Your task to perform on an android device: open app "Truecaller" Image 0: 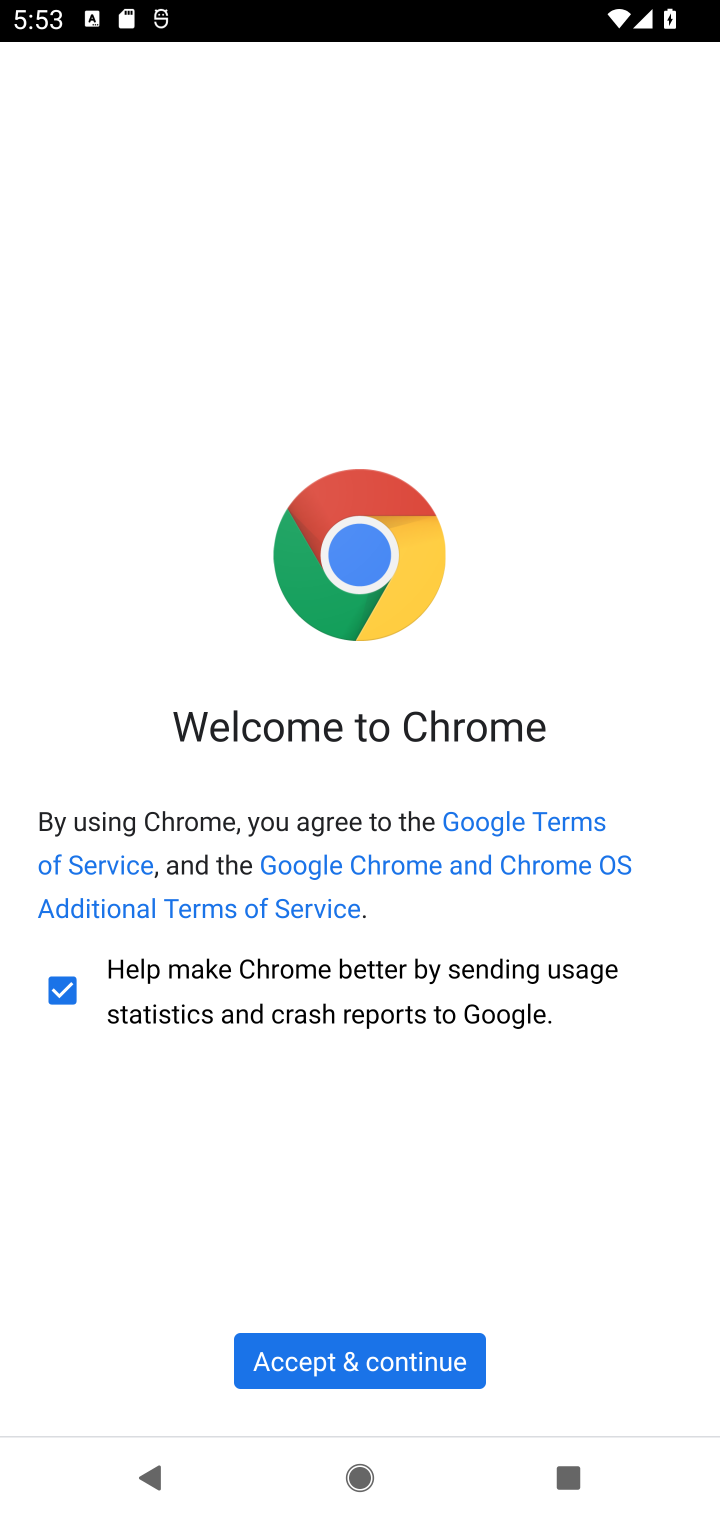
Step 0: press home button
Your task to perform on an android device: open app "Truecaller" Image 1: 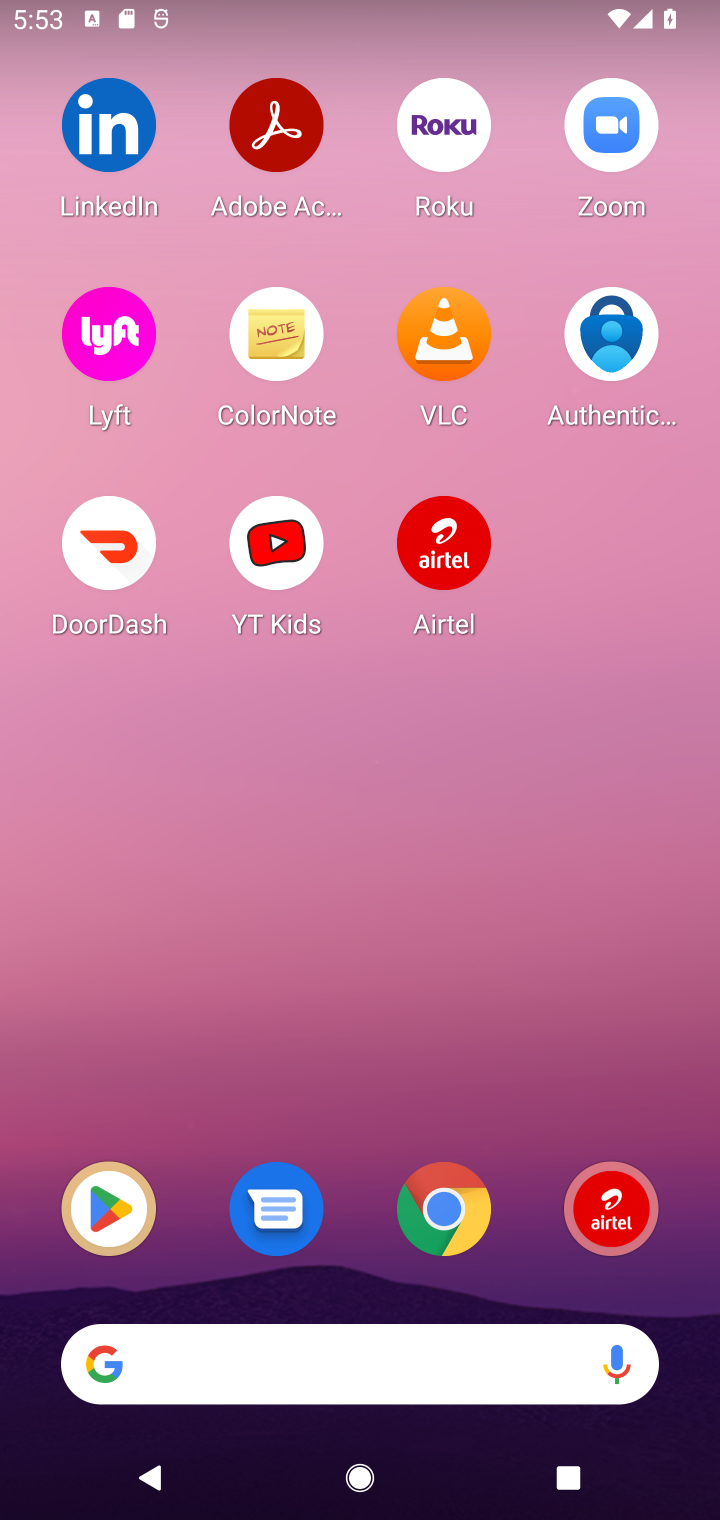
Step 1: click (109, 1233)
Your task to perform on an android device: open app "Truecaller" Image 2: 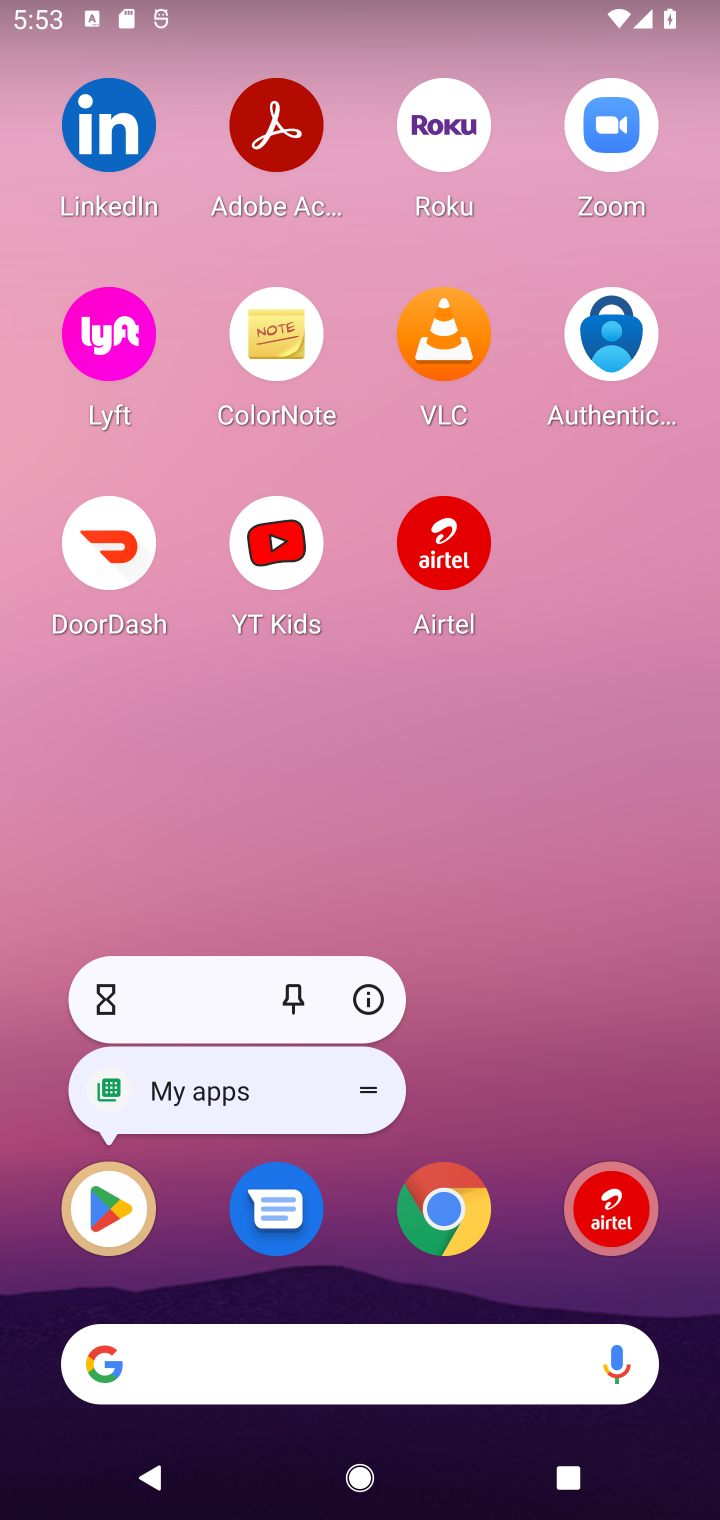
Step 2: click (111, 1223)
Your task to perform on an android device: open app "Truecaller" Image 3: 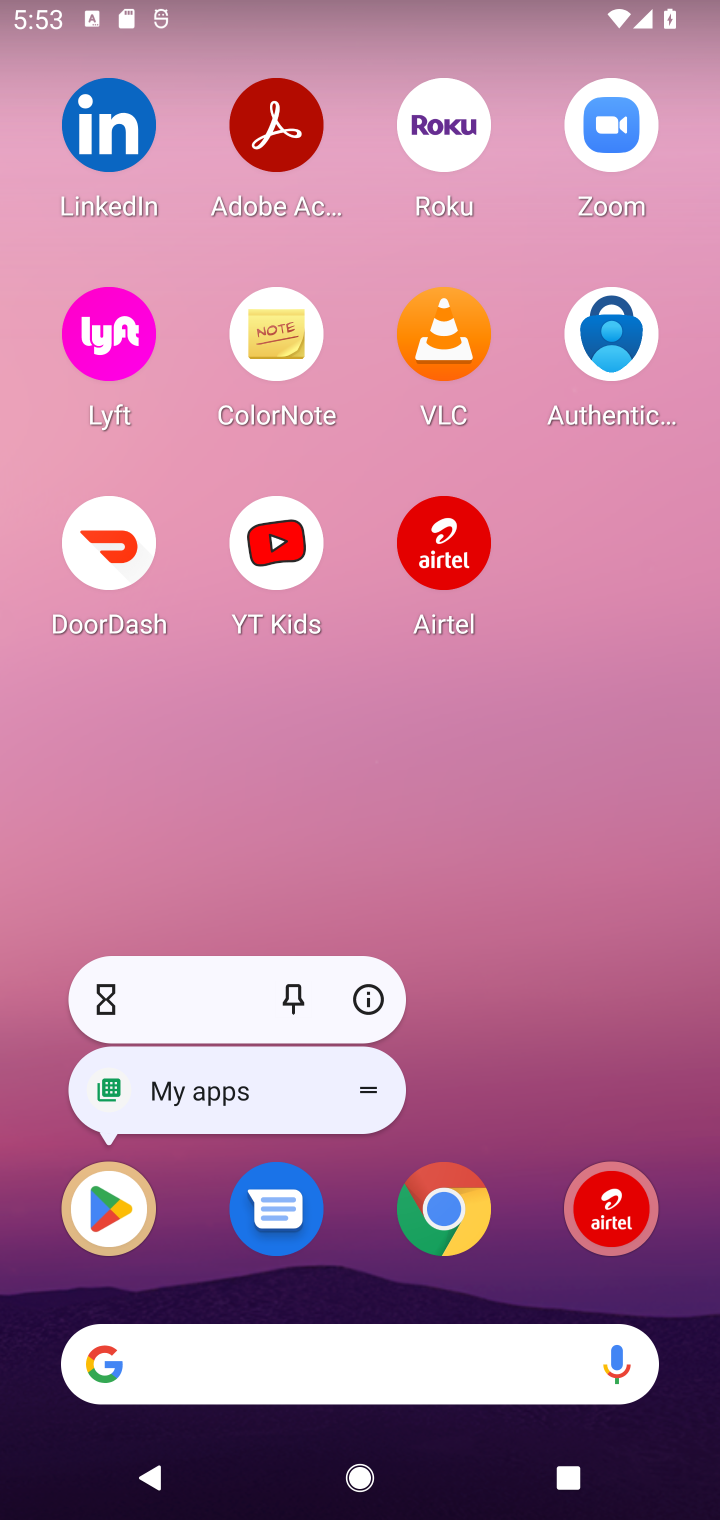
Step 3: click (111, 1223)
Your task to perform on an android device: open app "Truecaller" Image 4: 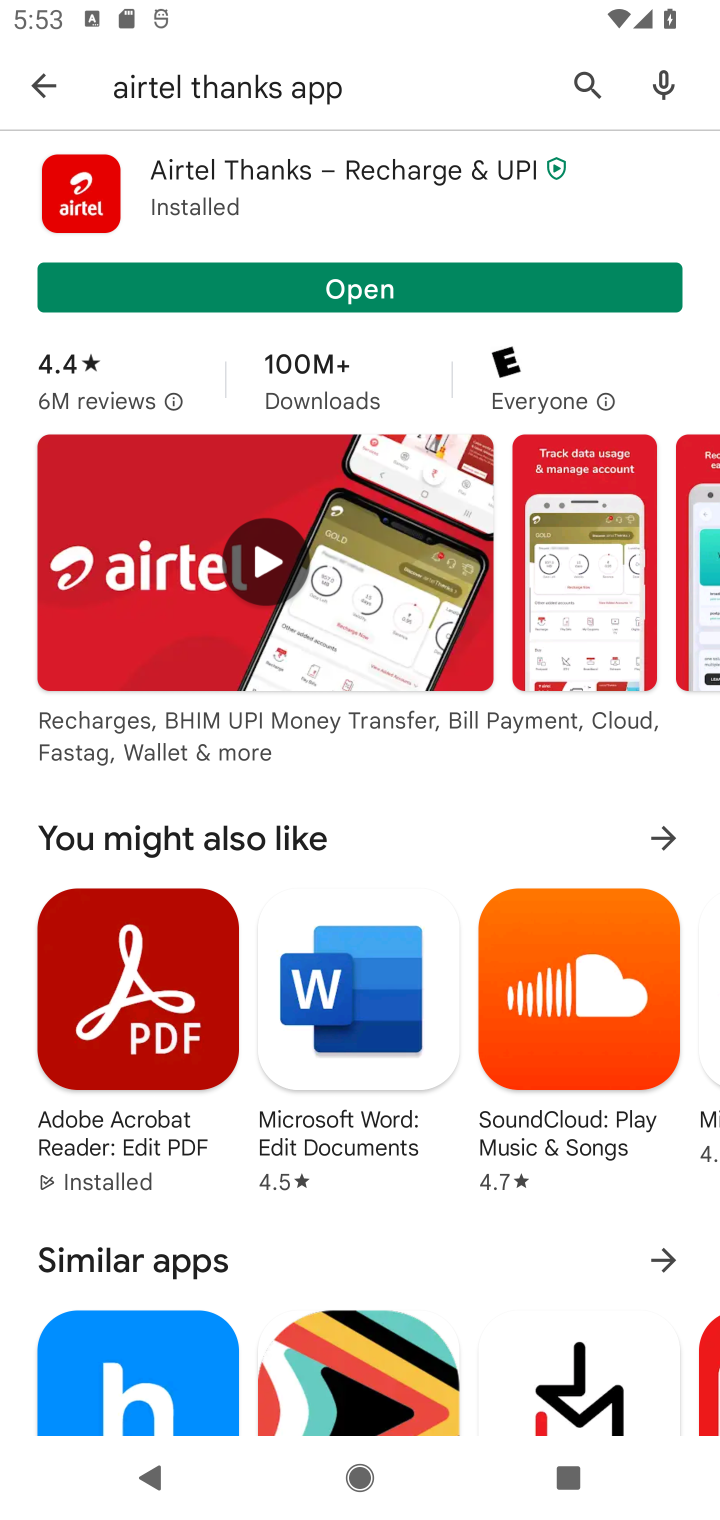
Step 4: click (584, 89)
Your task to perform on an android device: open app "Truecaller" Image 5: 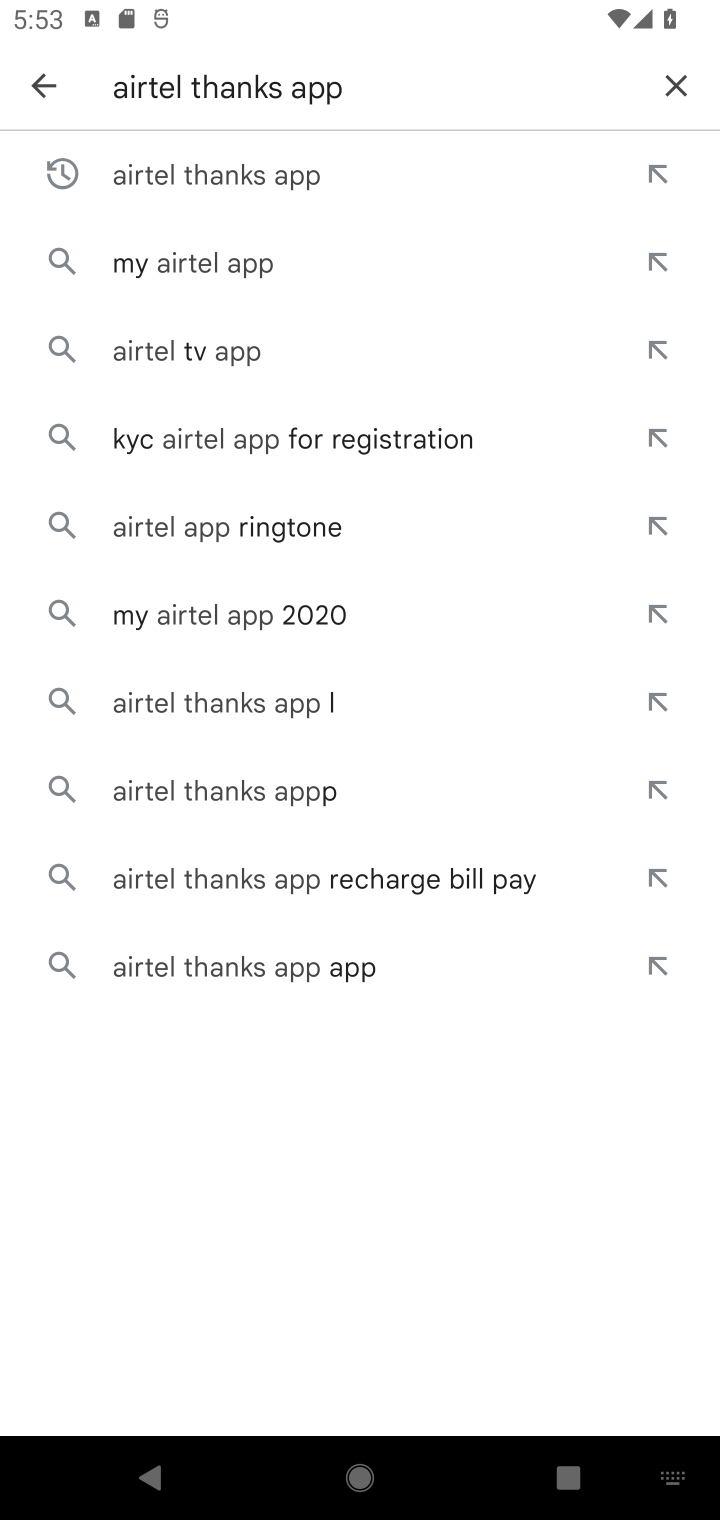
Step 5: click (673, 88)
Your task to perform on an android device: open app "Truecaller" Image 6: 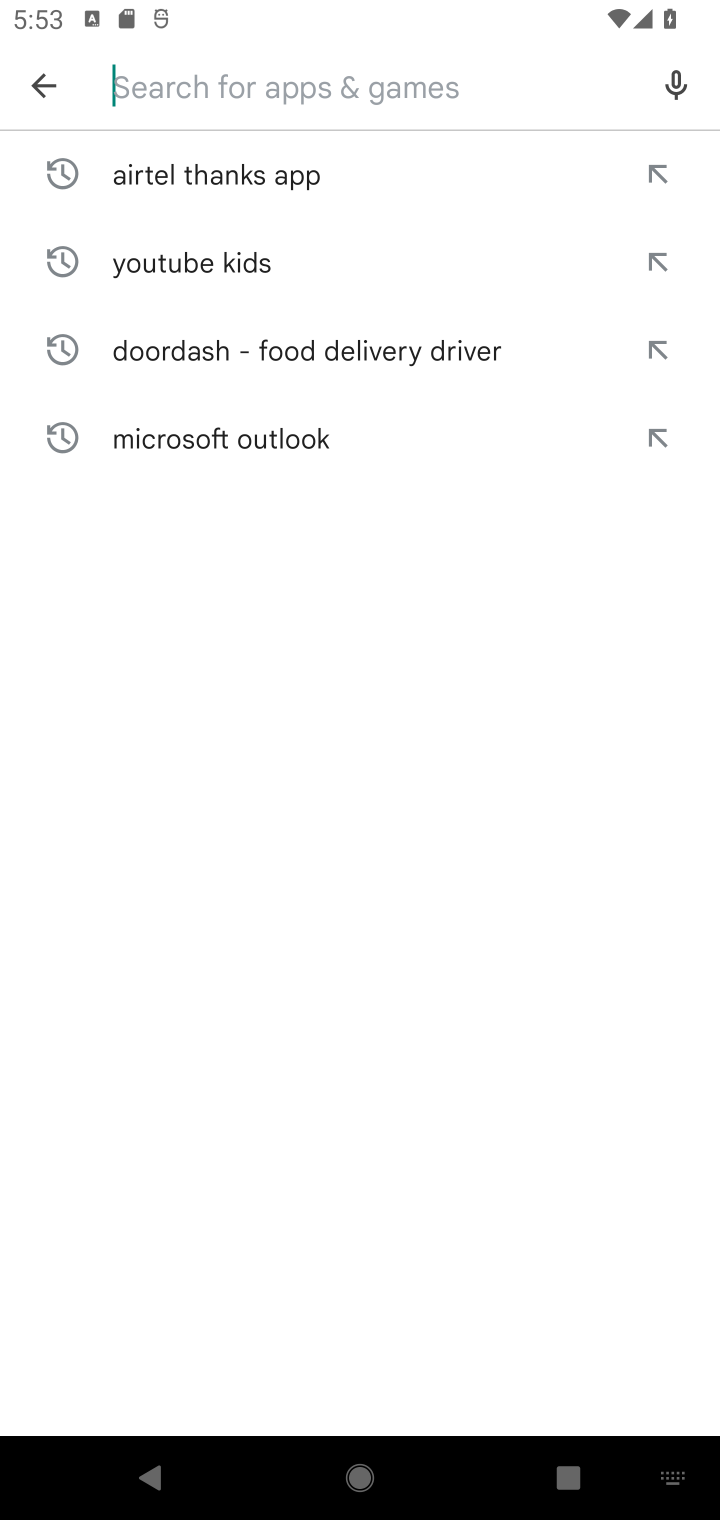
Step 6: click (450, 100)
Your task to perform on an android device: open app "Truecaller" Image 7: 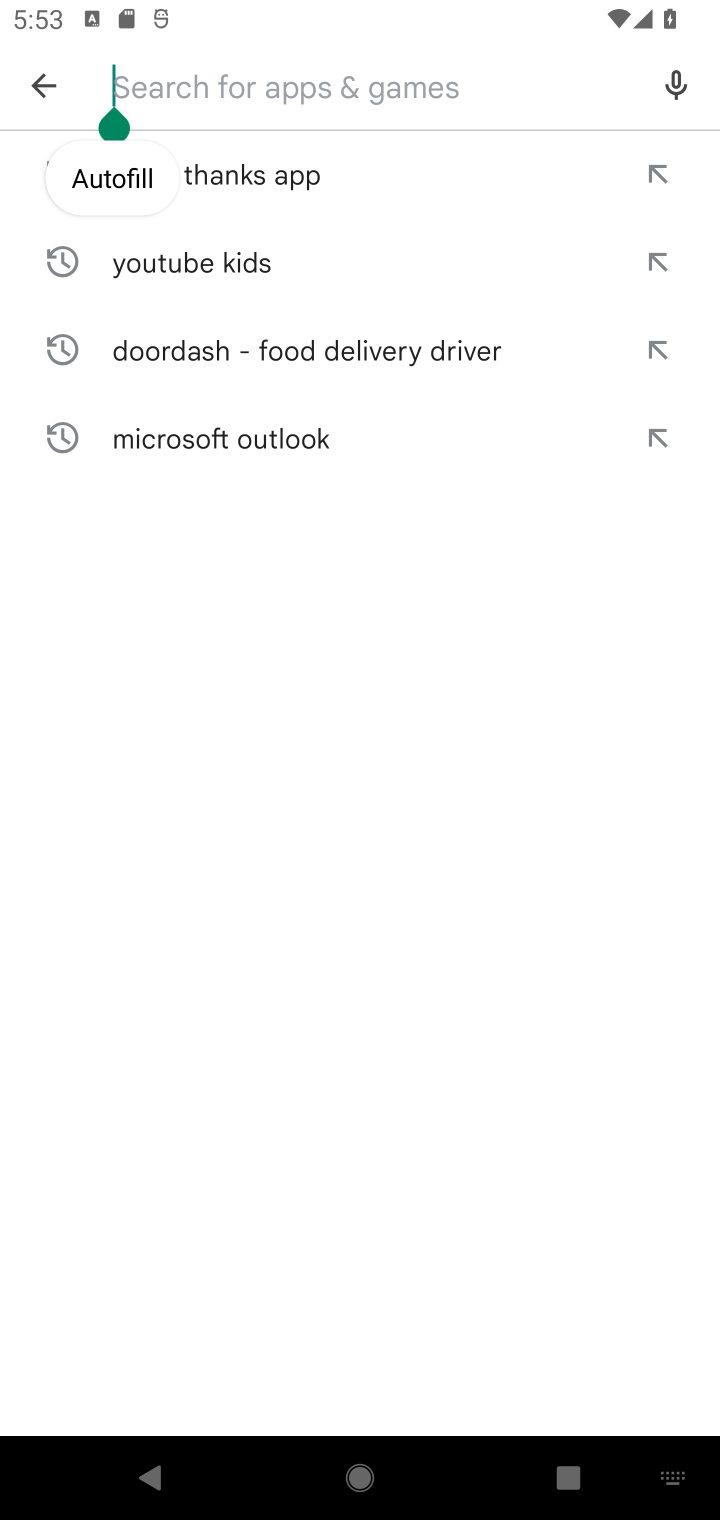
Step 7: type "Truecaller"
Your task to perform on an android device: open app "Truecaller" Image 8: 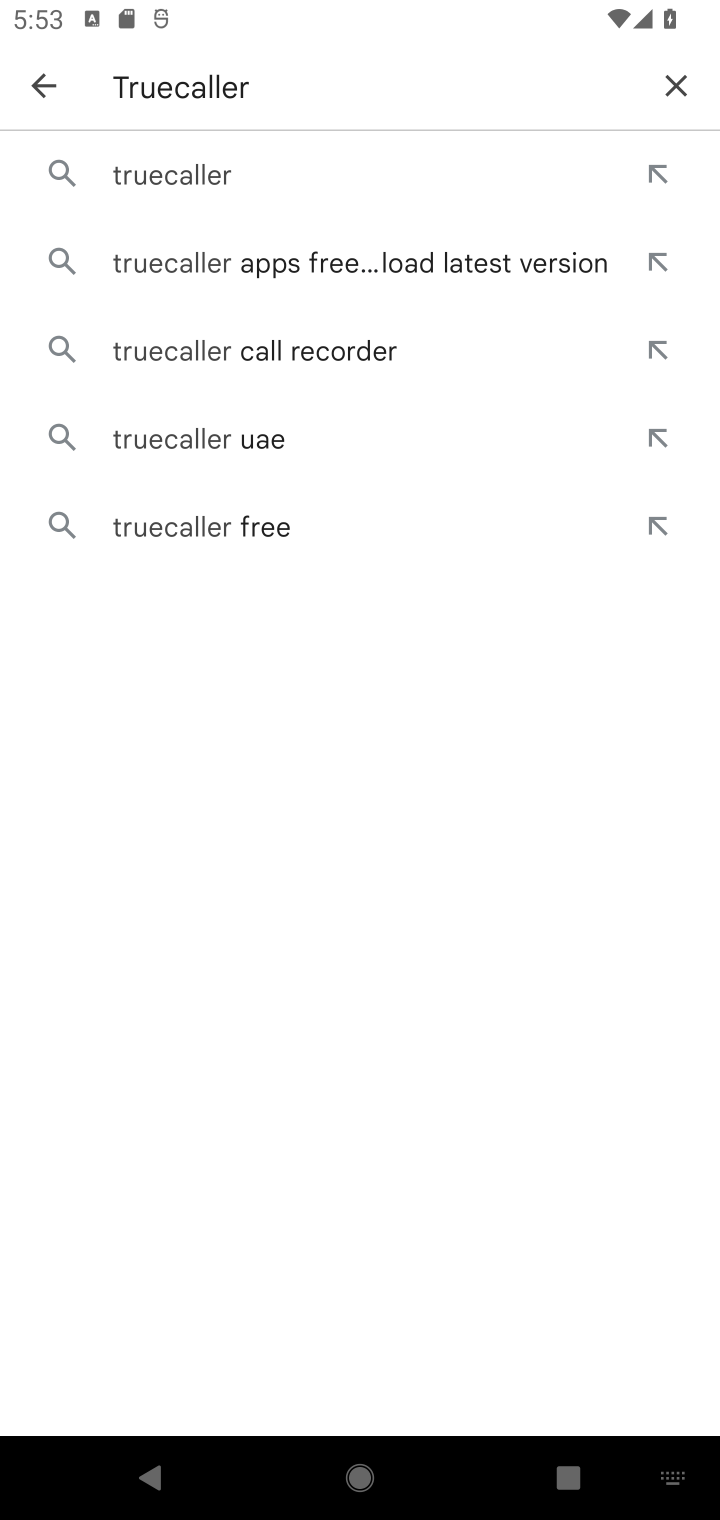
Step 8: click (210, 194)
Your task to perform on an android device: open app "Truecaller" Image 9: 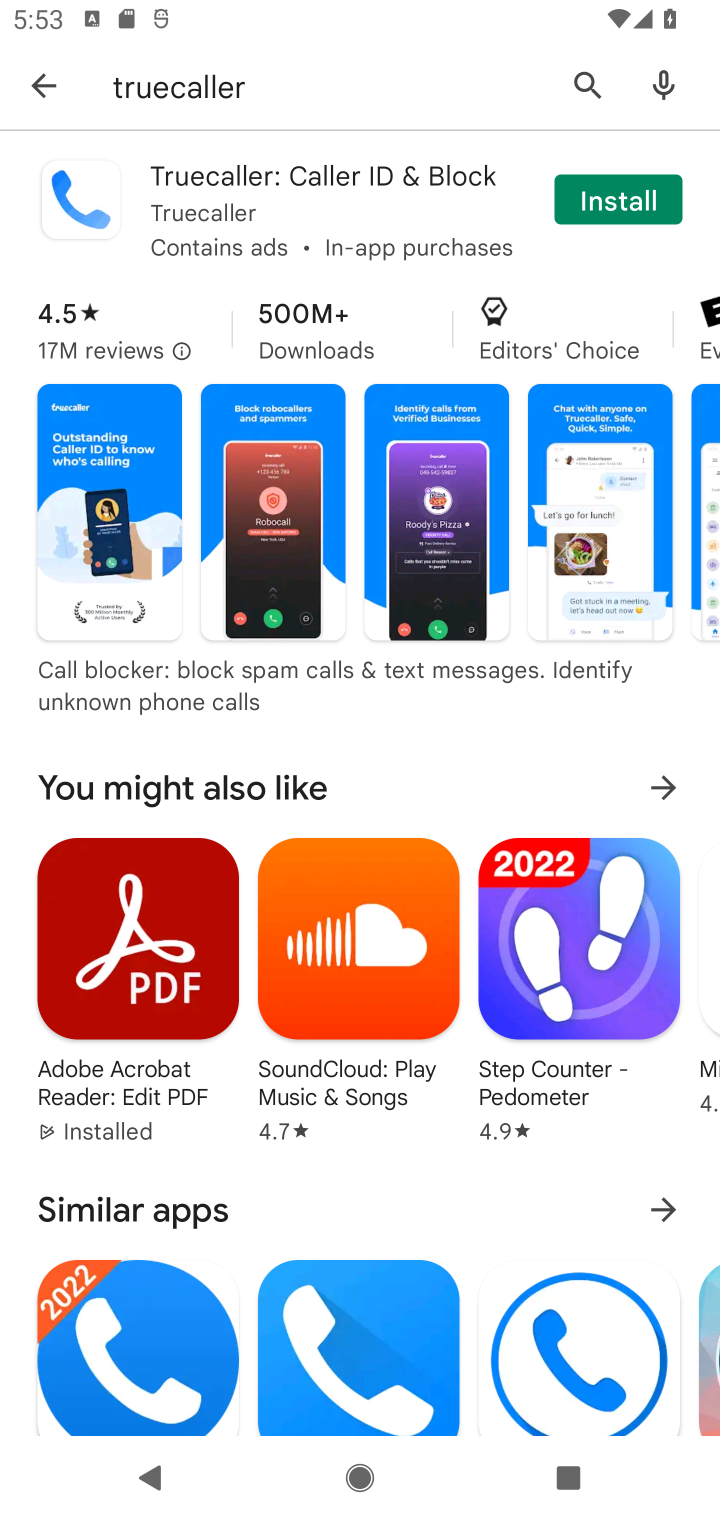
Step 9: task complete